Your task to perform on an android device: Open Amazon Image 0: 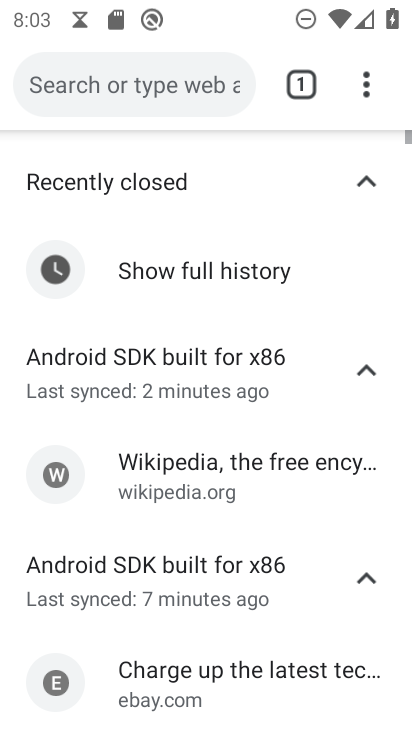
Step 0: press home button
Your task to perform on an android device: Open Amazon Image 1: 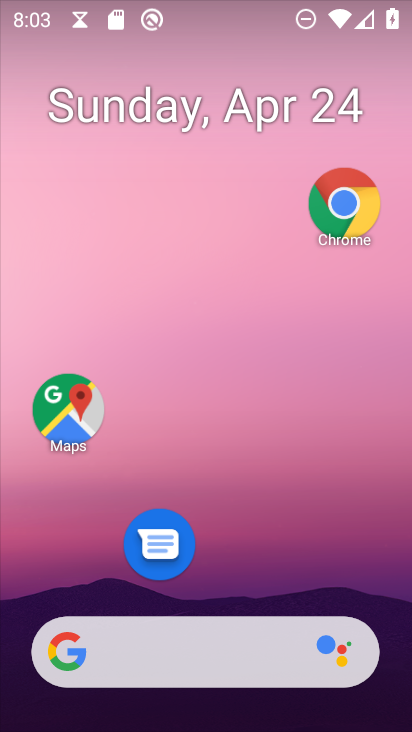
Step 1: drag from (190, 652) to (315, 121)
Your task to perform on an android device: Open Amazon Image 2: 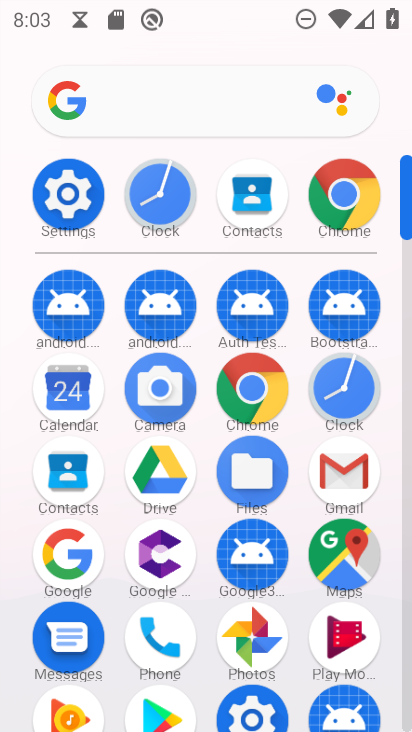
Step 2: click (346, 207)
Your task to perform on an android device: Open Amazon Image 3: 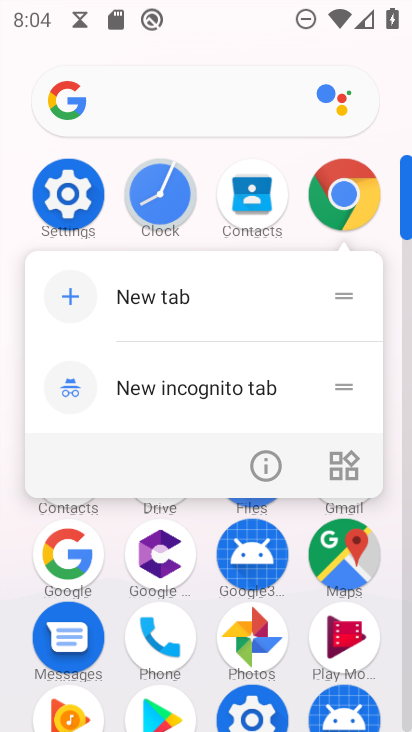
Step 3: click (343, 207)
Your task to perform on an android device: Open Amazon Image 4: 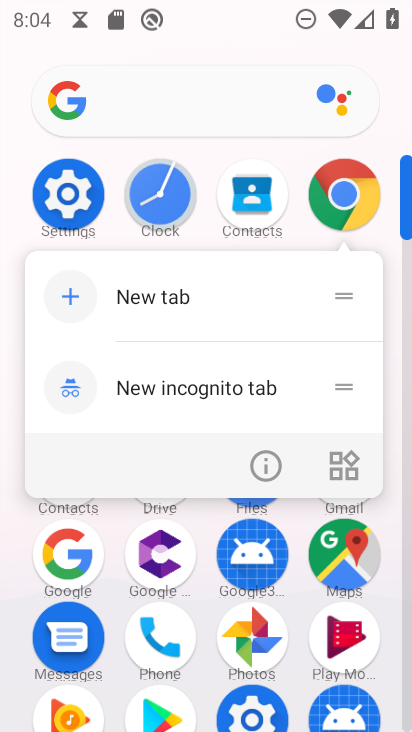
Step 4: click (343, 206)
Your task to perform on an android device: Open Amazon Image 5: 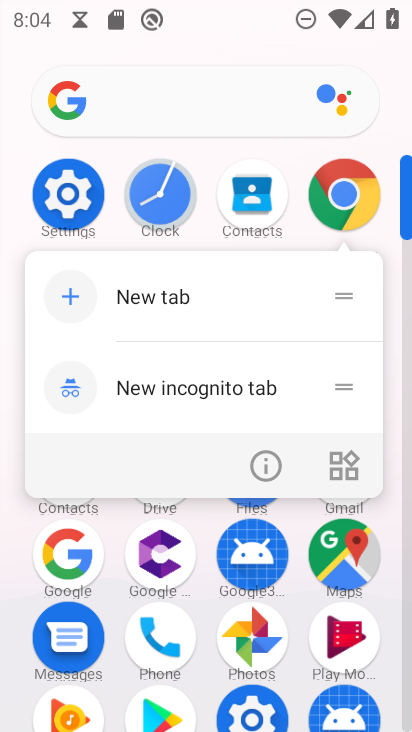
Step 5: click (343, 207)
Your task to perform on an android device: Open Amazon Image 6: 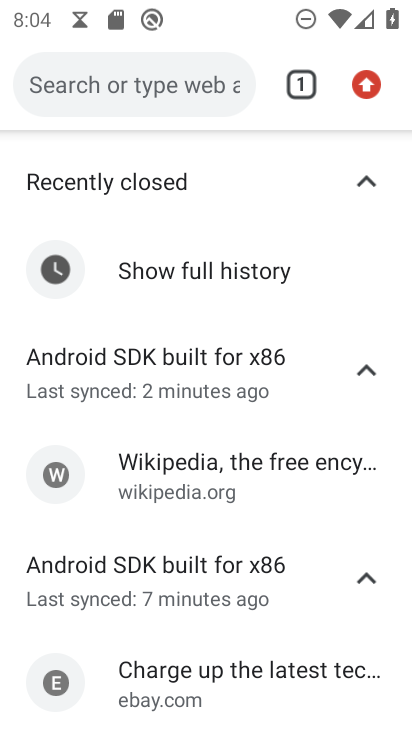
Step 6: click (368, 102)
Your task to perform on an android device: Open Amazon Image 7: 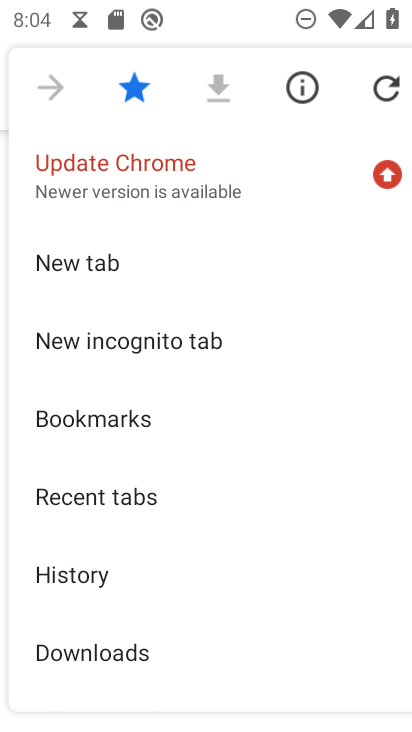
Step 7: click (104, 258)
Your task to perform on an android device: Open Amazon Image 8: 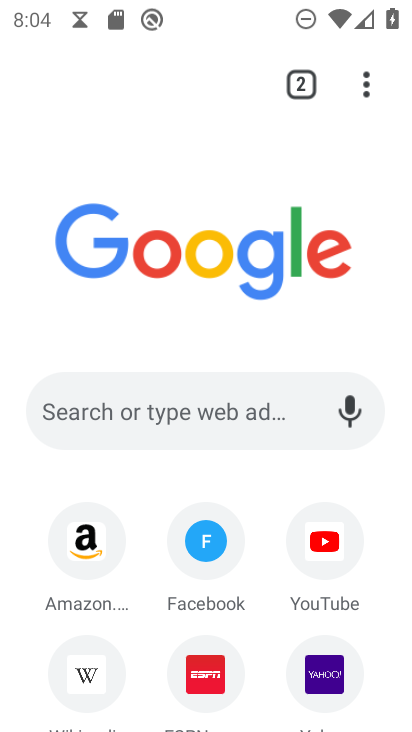
Step 8: click (81, 543)
Your task to perform on an android device: Open Amazon Image 9: 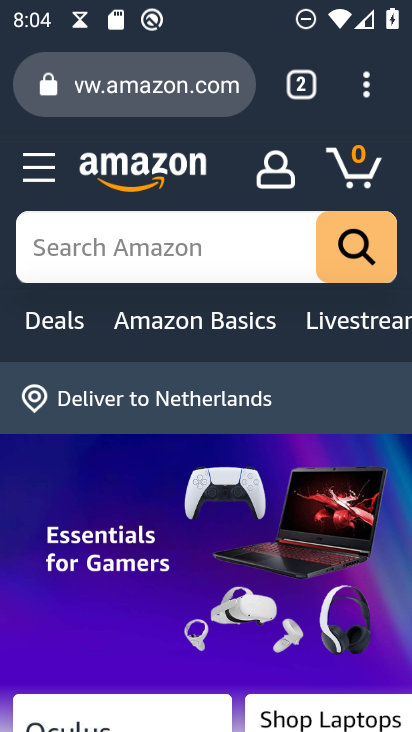
Step 9: task complete